Your task to perform on an android device: clear history in the chrome app Image 0: 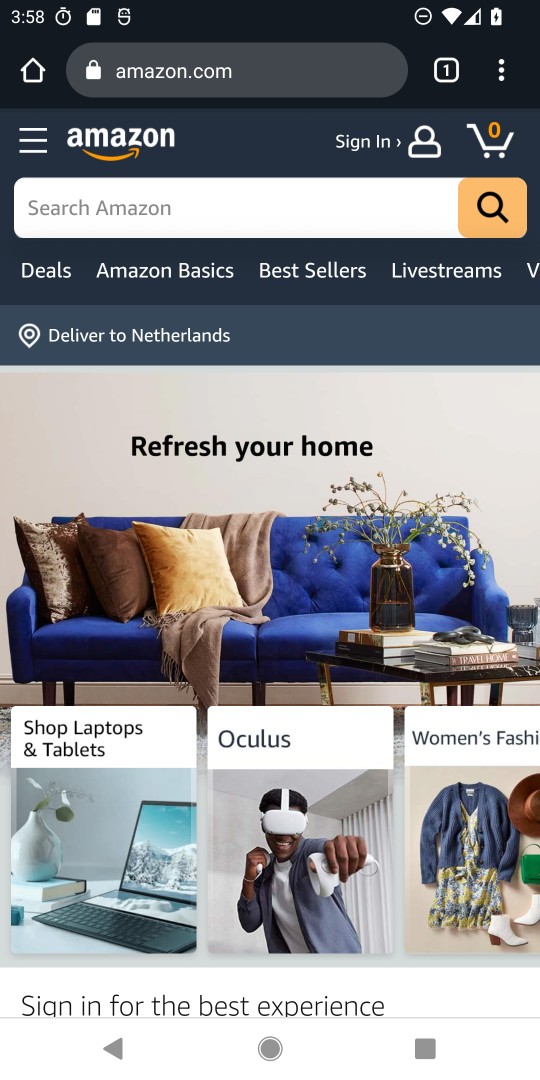
Step 0: click (501, 73)
Your task to perform on an android device: clear history in the chrome app Image 1: 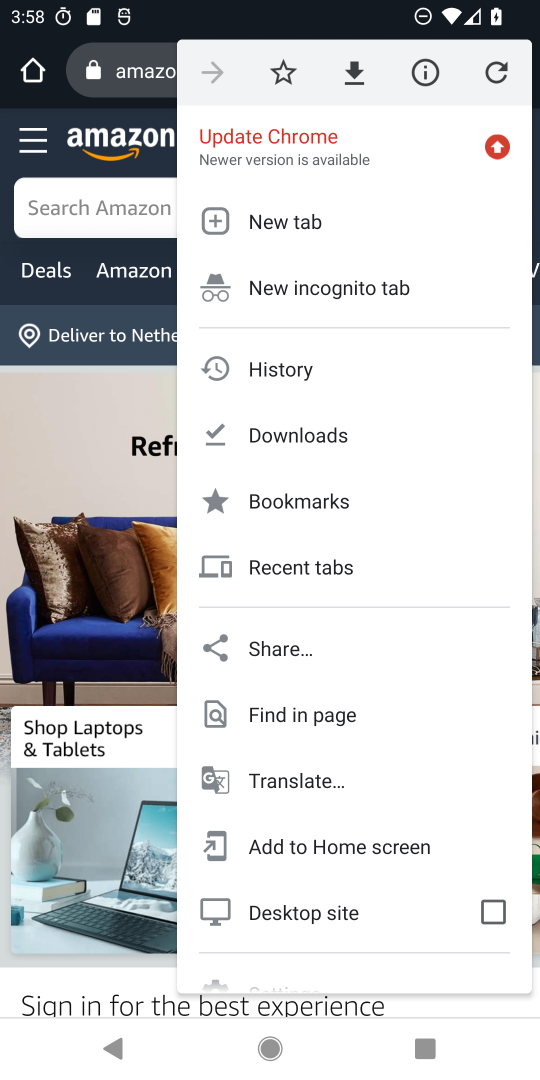
Step 1: click (274, 368)
Your task to perform on an android device: clear history in the chrome app Image 2: 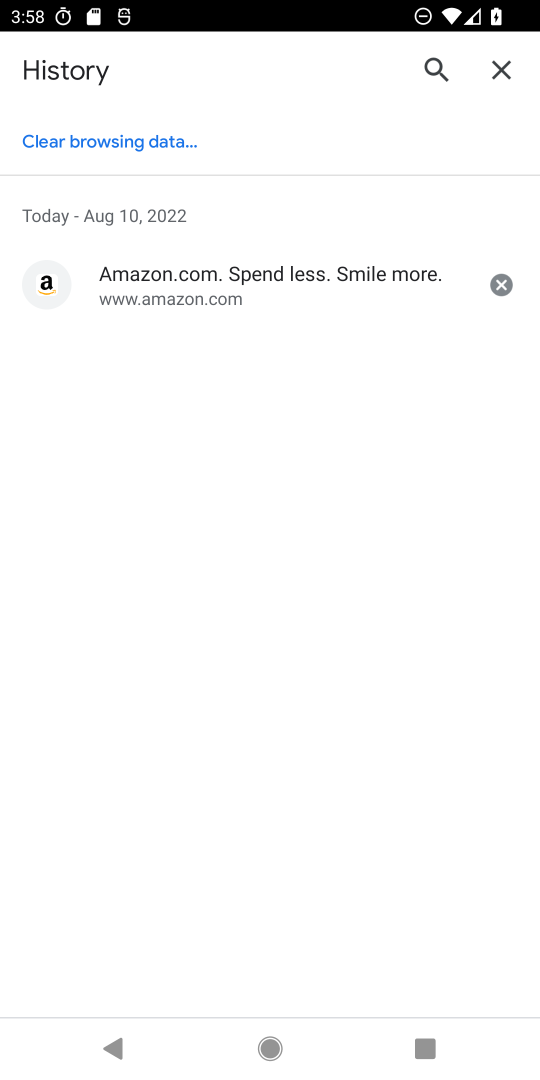
Step 2: click (114, 145)
Your task to perform on an android device: clear history in the chrome app Image 3: 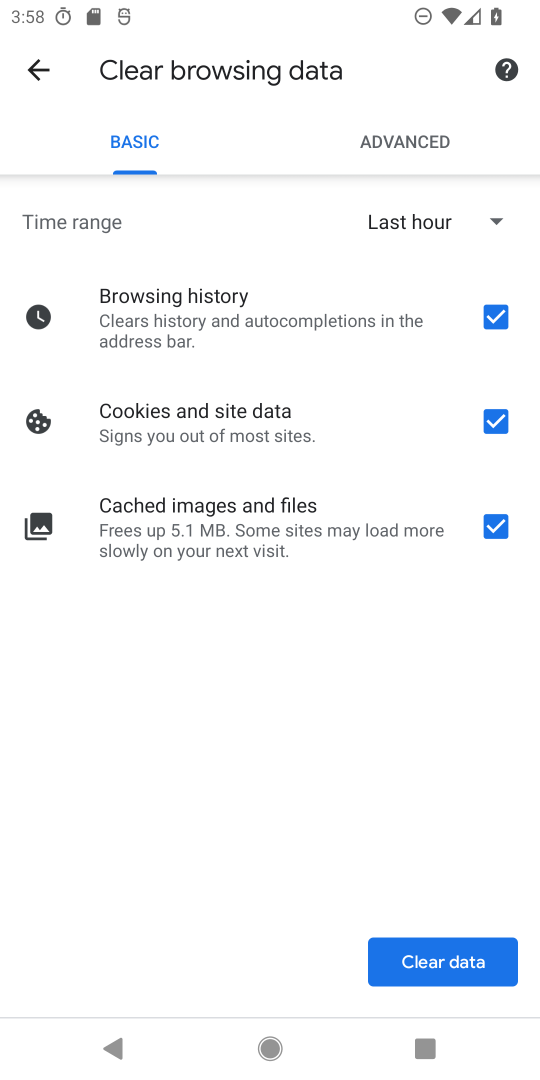
Step 3: click (505, 424)
Your task to perform on an android device: clear history in the chrome app Image 4: 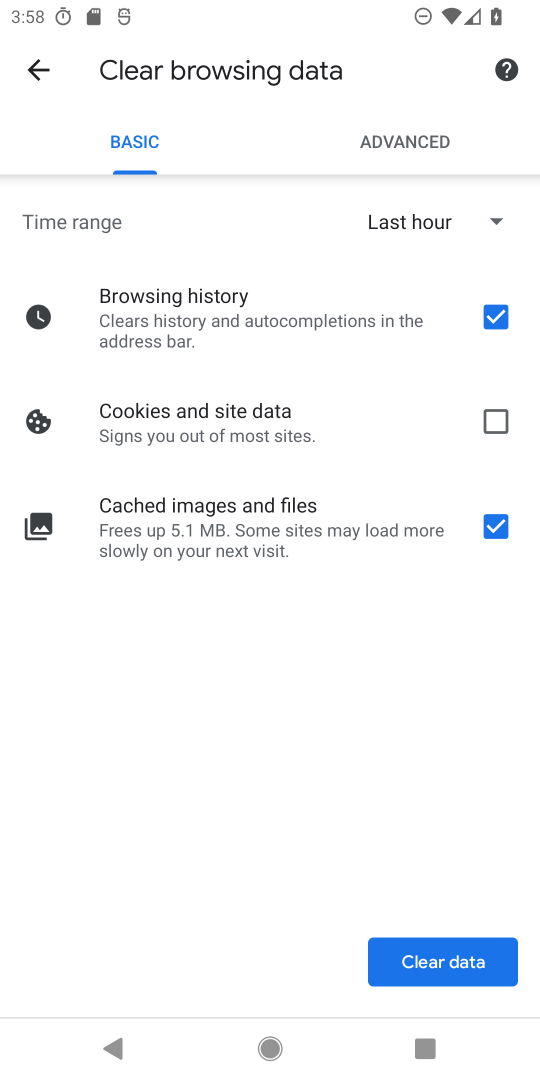
Step 4: click (497, 531)
Your task to perform on an android device: clear history in the chrome app Image 5: 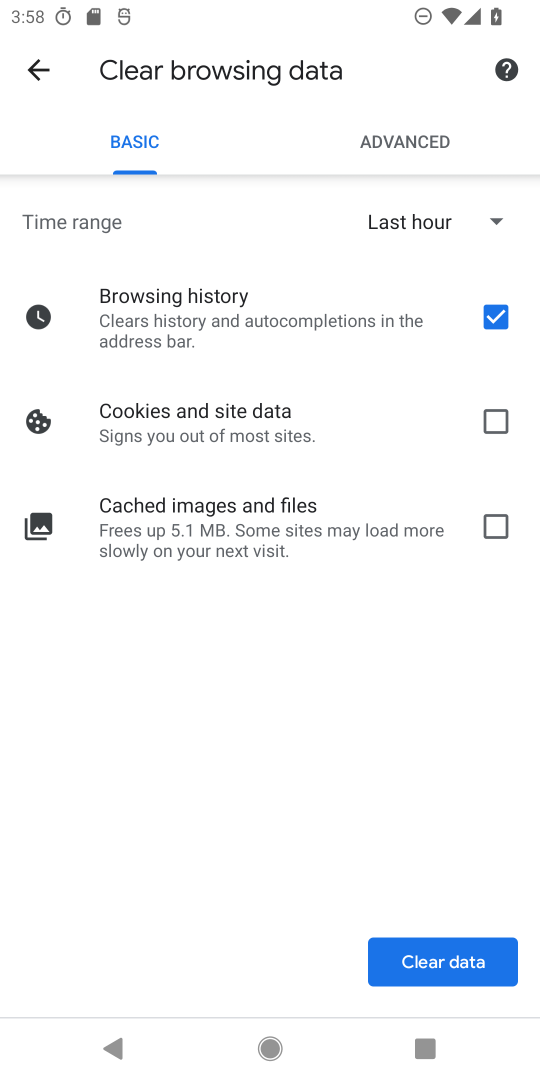
Step 5: click (427, 969)
Your task to perform on an android device: clear history in the chrome app Image 6: 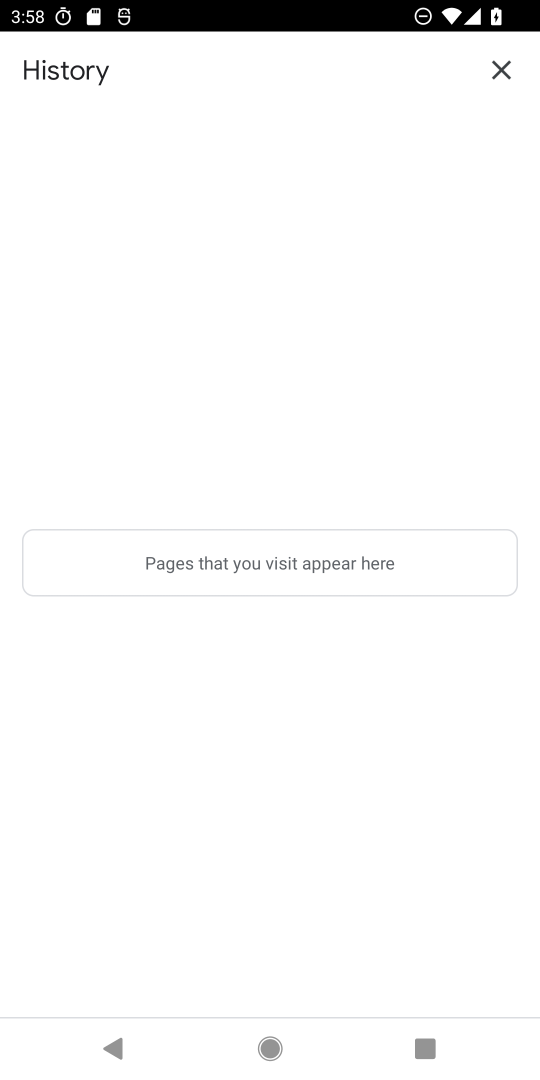
Step 6: task complete